Your task to perform on an android device: find snoozed emails in the gmail app Image 0: 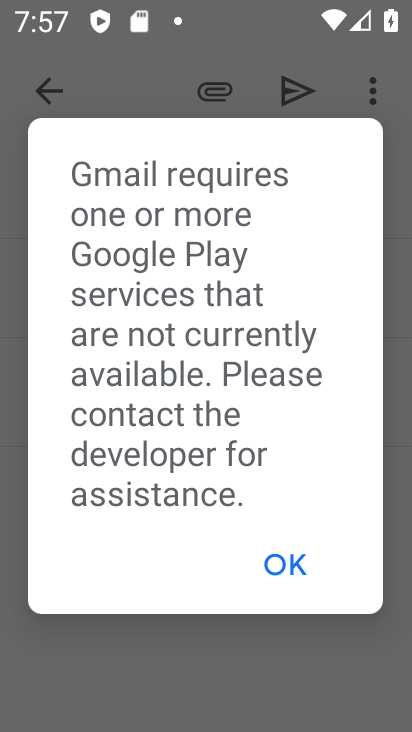
Step 0: click (201, 303)
Your task to perform on an android device: find snoozed emails in the gmail app Image 1: 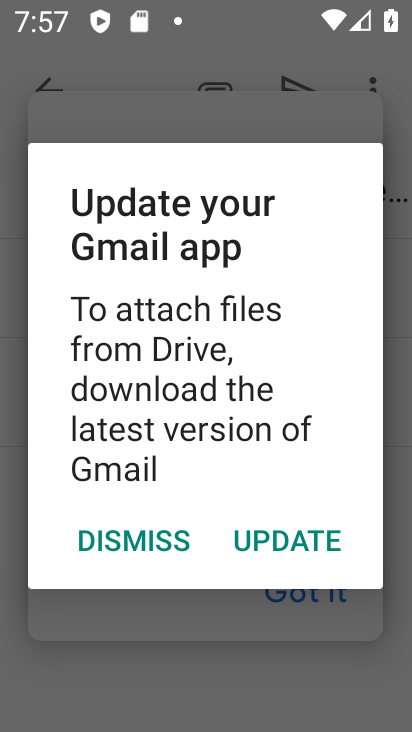
Step 1: press back button
Your task to perform on an android device: find snoozed emails in the gmail app Image 2: 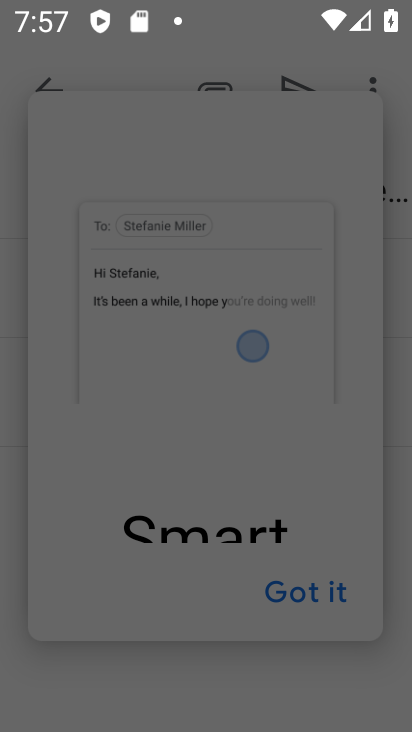
Step 2: press back button
Your task to perform on an android device: find snoozed emails in the gmail app Image 3: 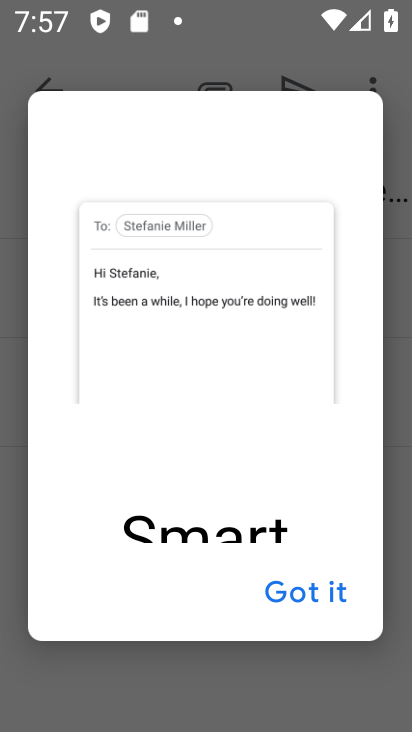
Step 3: press back button
Your task to perform on an android device: find snoozed emails in the gmail app Image 4: 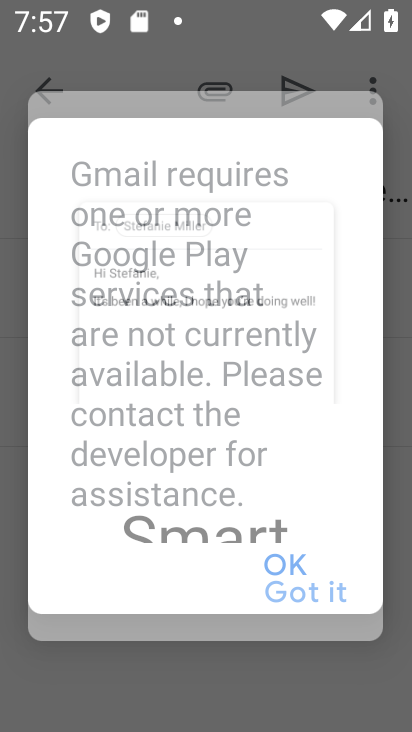
Step 4: press back button
Your task to perform on an android device: find snoozed emails in the gmail app Image 5: 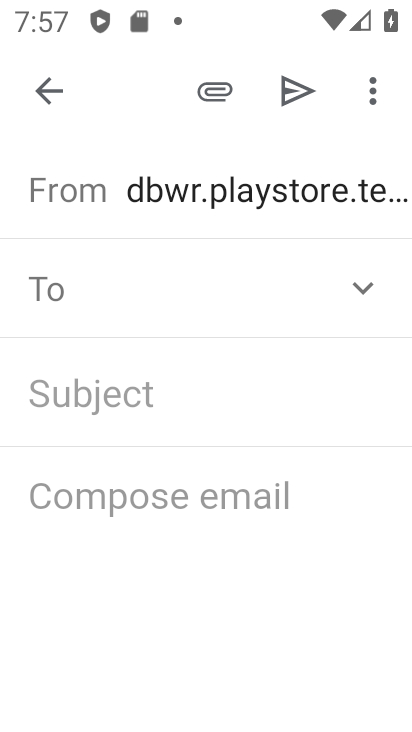
Step 5: click (279, 553)
Your task to perform on an android device: find snoozed emails in the gmail app Image 6: 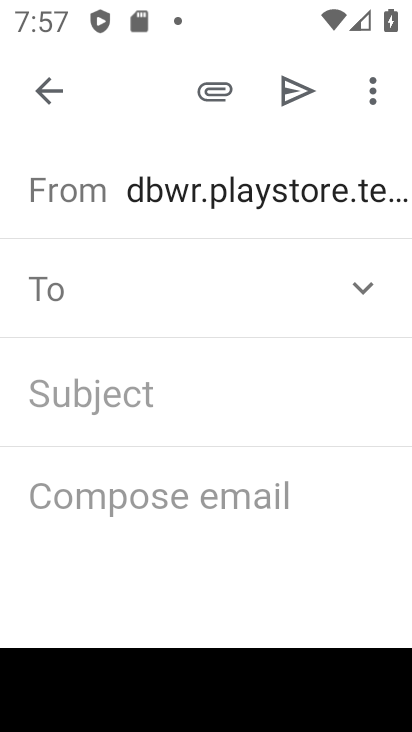
Step 6: click (44, 91)
Your task to perform on an android device: find snoozed emails in the gmail app Image 7: 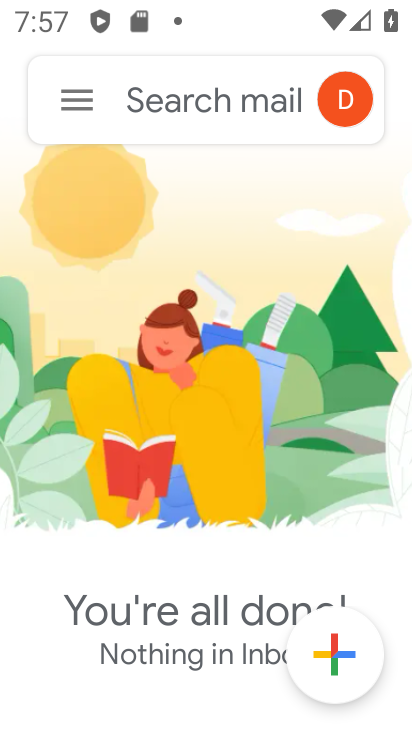
Step 7: drag from (77, 104) to (76, 515)
Your task to perform on an android device: find snoozed emails in the gmail app Image 8: 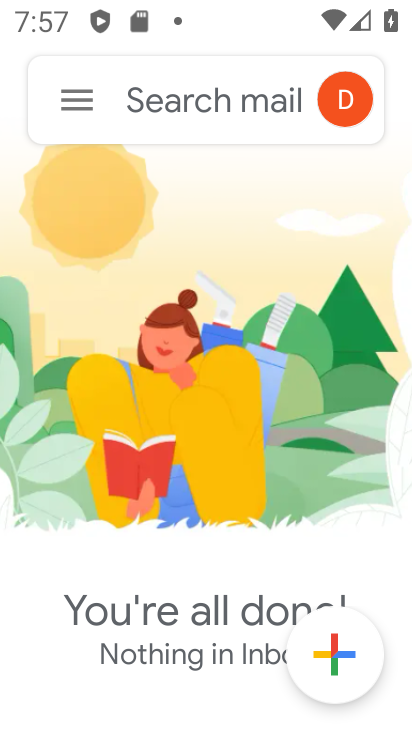
Step 8: click (63, 115)
Your task to perform on an android device: find snoozed emails in the gmail app Image 9: 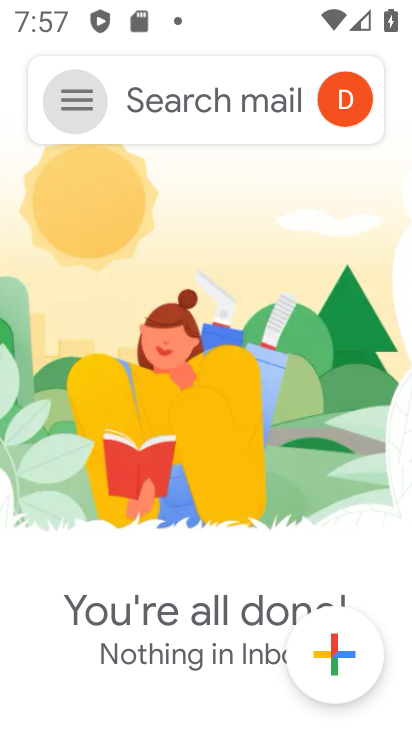
Step 9: click (80, 96)
Your task to perform on an android device: find snoozed emails in the gmail app Image 10: 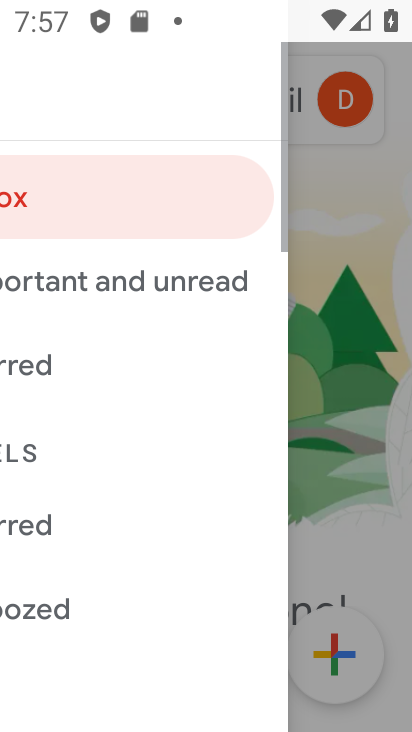
Step 10: click (80, 96)
Your task to perform on an android device: find snoozed emails in the gmail app Image 11: 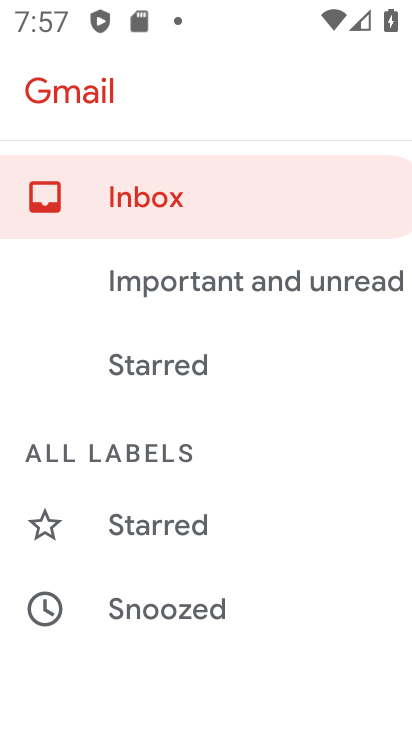
Step 11: click (80, 96)
Your task to perform on an android device: find snoozed emails in the gmail app Image 12: 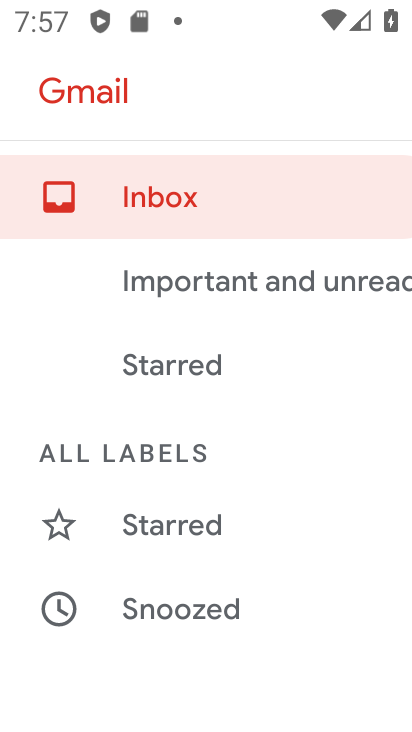
Step 12: click (80, 96)
Your task to perform on an android device: find snoozed emails in the gmail app Image 13: 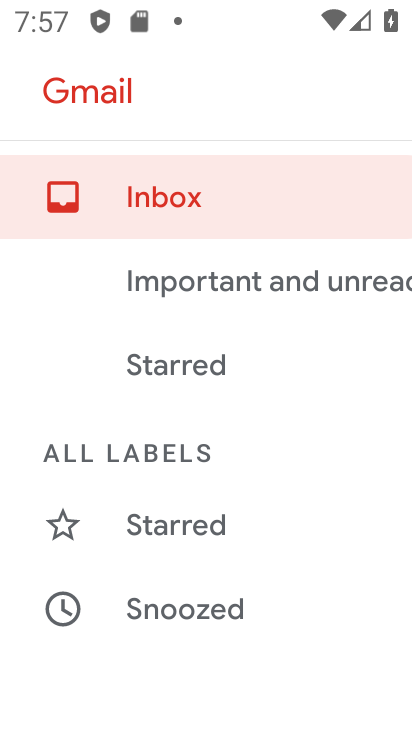
Step 13: drag from (188, 515) to (181, 98)
Your task to perform on an android device: find snoozed emails in the gmail app Image 14: 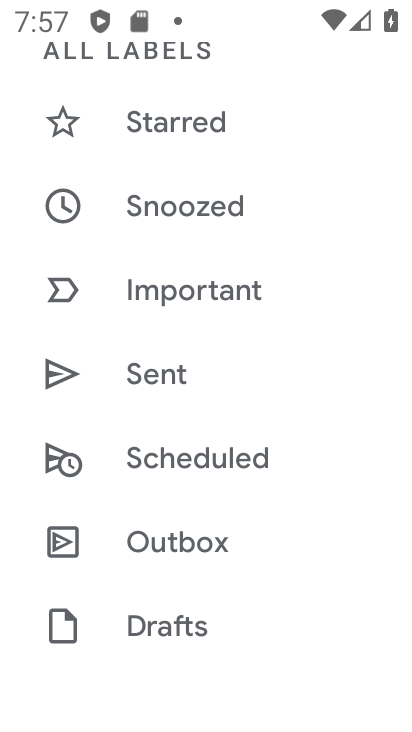
Step 14: click (170, 225)
Your task to perform on an android device: find snoozed emails in the gmail app Image 15: 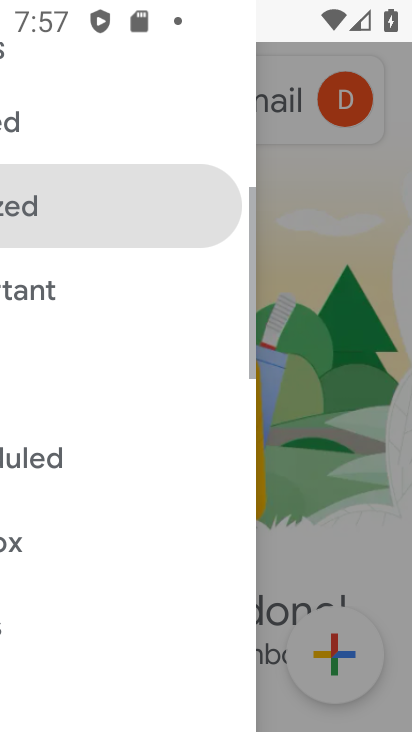
Step 15: click (171, 219)
Your task to perform on an android device: find snoozed emails in the gmail app Image 16: 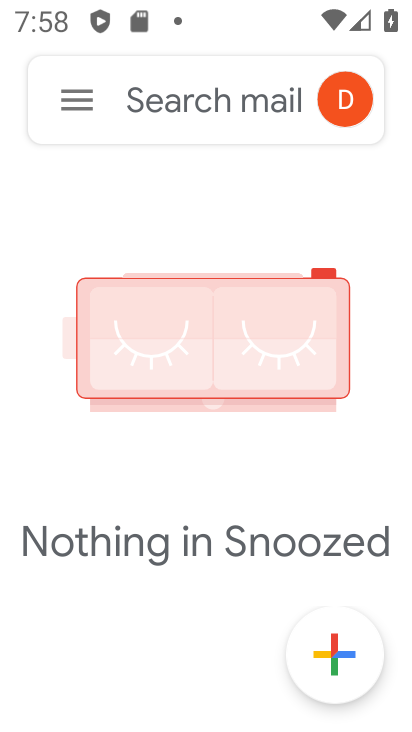
Step 16: task complete